Your task to perform on an android device: open app "AliExpress" (install if not already installed) and enter user name: "orangutan@inbox.com" and password: "Lyons" Image 0: 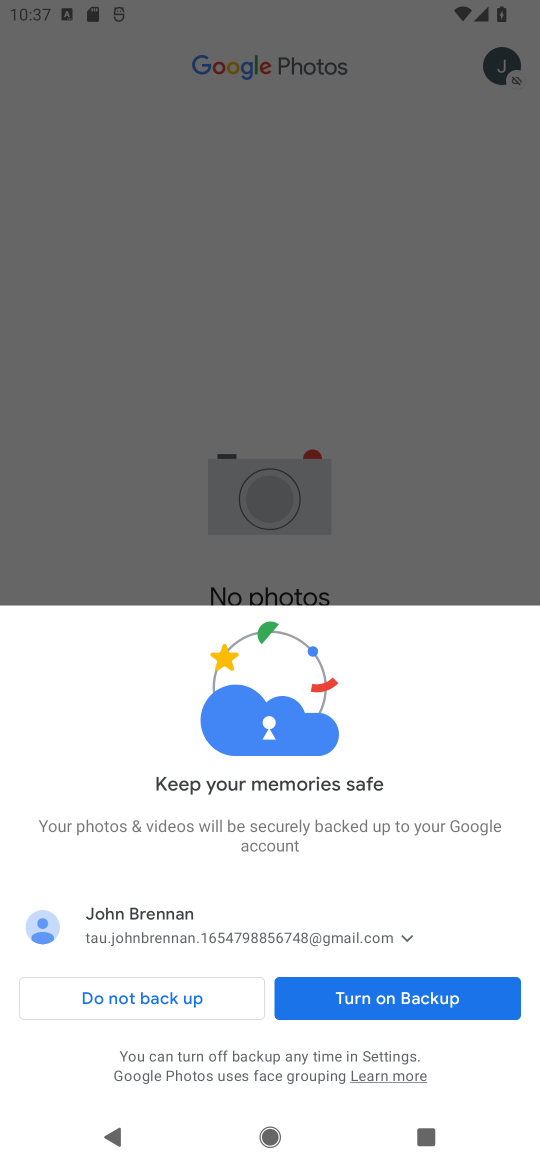
Step 0: press home button
Your task to perform on an android device: open app "AliExpress" (install if not already installed) and enter user name: "orangutan@inbox.com" and password: "Lyons" Image 1: 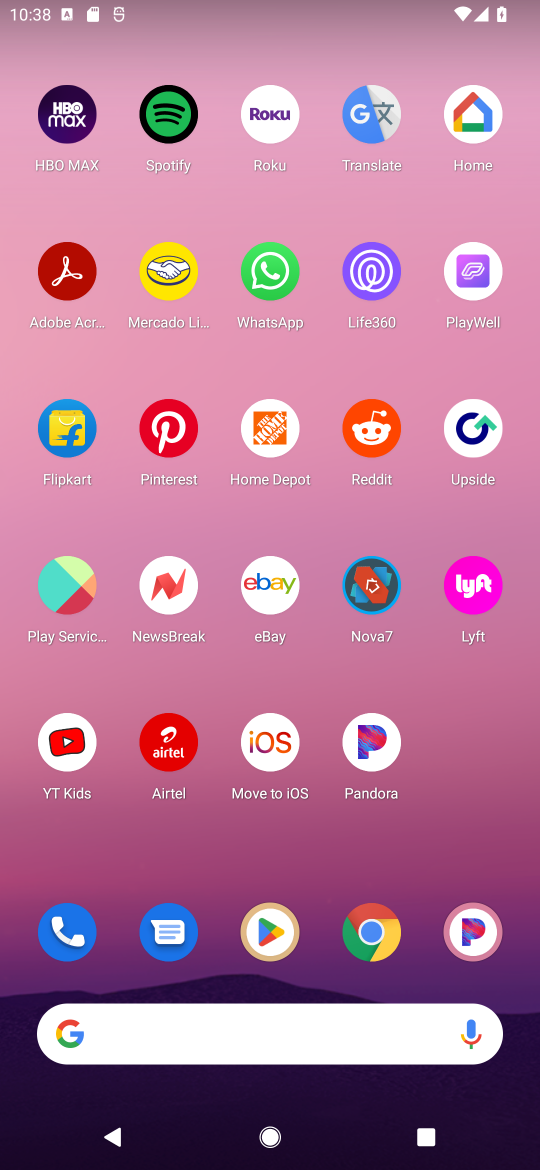
Step 1: click (272, 941)
Your task to perform on an android device: open app "AliExpress" (install if not already installed) and enter user name: "orangutan@inbox.com" and password: "Lyons" Image 2: 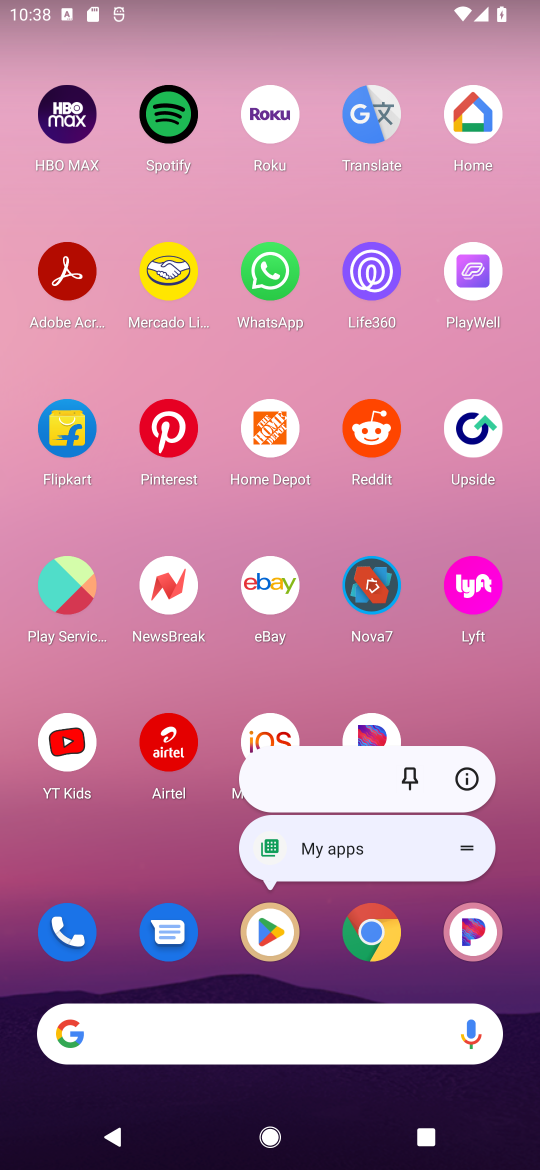
Step 2: click (275, 913)
Your task to perform on an android device: open app "AliExpress" (install if not already installed) and enter user name: "orangutan@inbox.com" and password: "Lyons" Image 3: 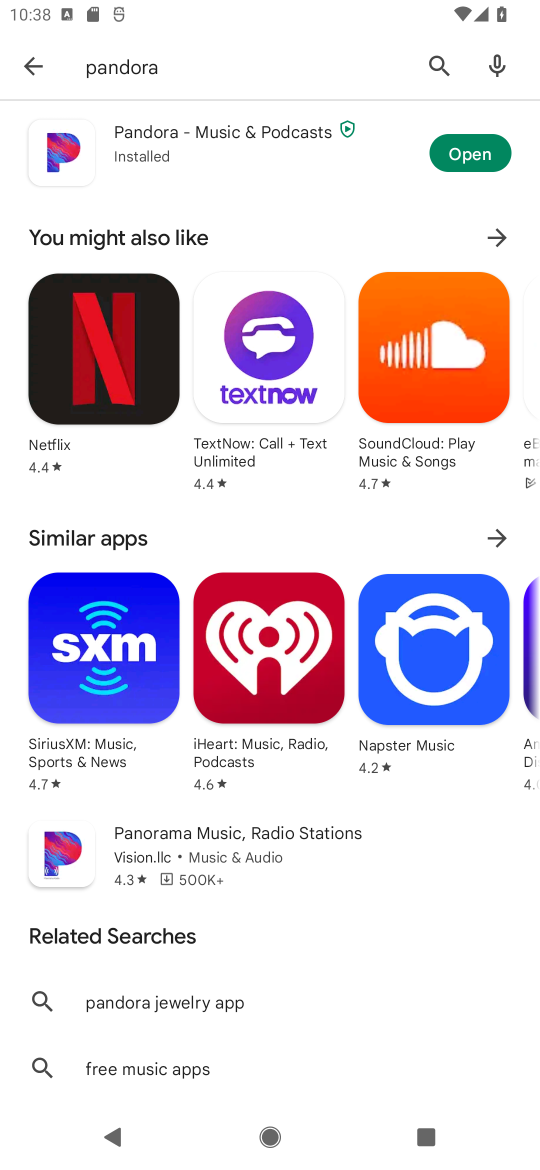
Step 3: click (426, 75)
Your task to perform on an android device: open app "AliExpress" (install if not already installed) and enter user name: "orangutan@inbox.com" and password: "Lyons" Image 4: 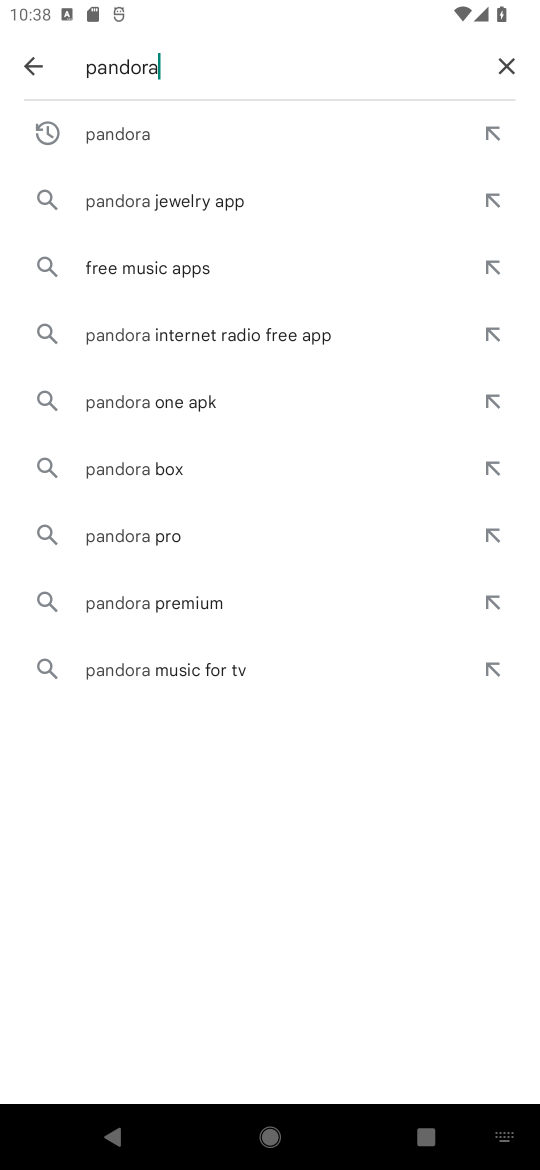
Step 4: click (497, 61)
Your task to perform on an android device: open app "AliExpress" (install if not already installed) and enter user name: "orangutan@inbox.com" and password: "Lyons" Image 5: 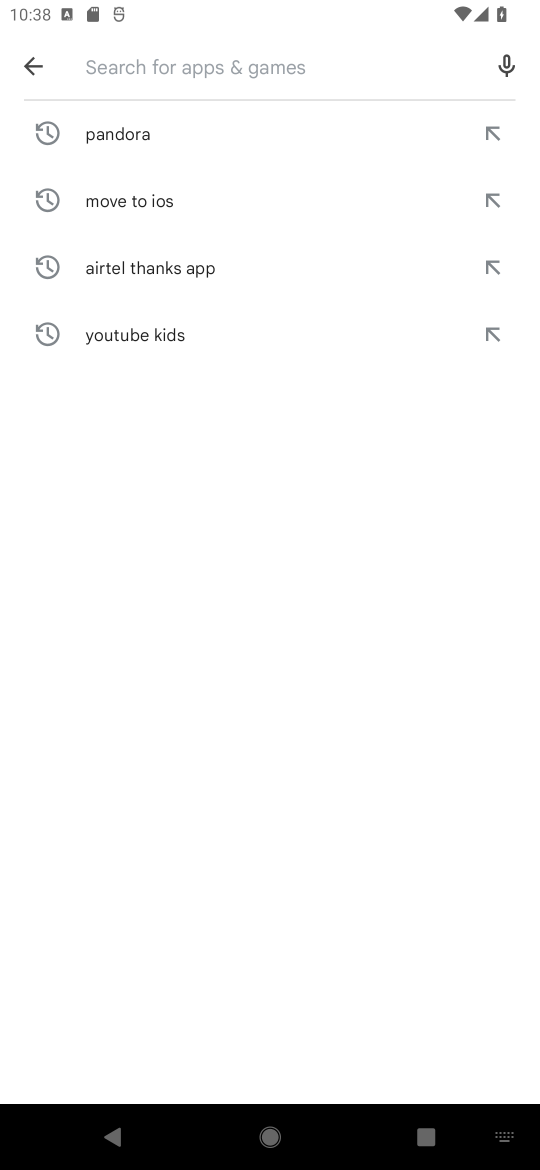
Step 5: click (169, 63)
Your task to perform on an android device: open app "AliExpress" (install if not already installed) and enter user name: "orangutan@inbox.com" and password: "Lyons" Image 6: 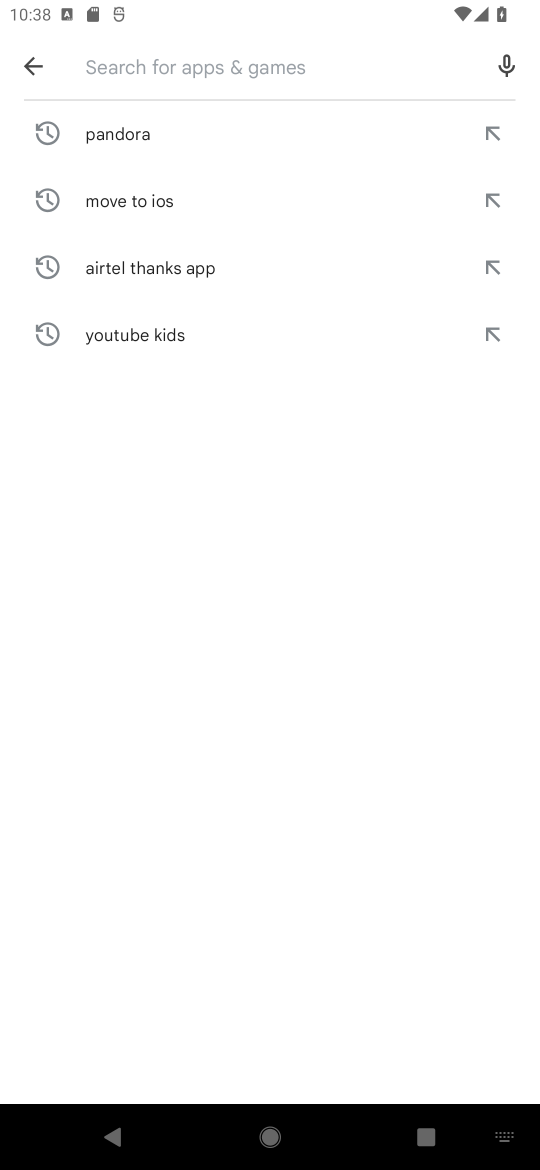
Step 6: type "AliExpress"
Your task to perform on an android device: open app "AliExpress" (install if not already installed) and enter user name: "orangutan@inbox.com" and password: "Lyons" Image 7: 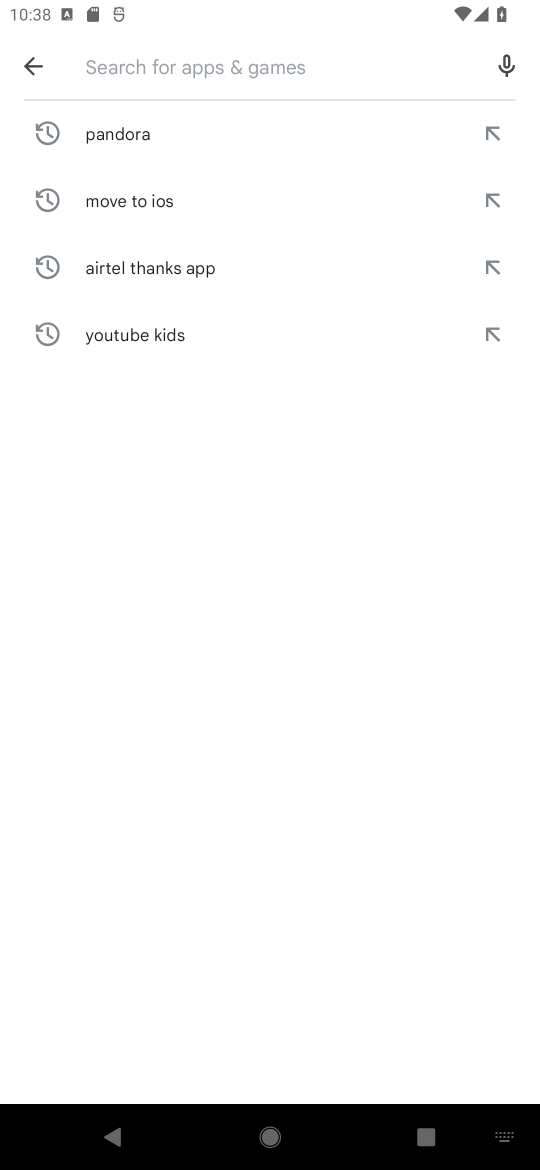
Step 7: click (314, 743)
Your task to perform on an android device: open app "AliExpress" (install if not already installed) and enter user name: "orangutan@inbox.com" and password: "Lyons" Image 8: 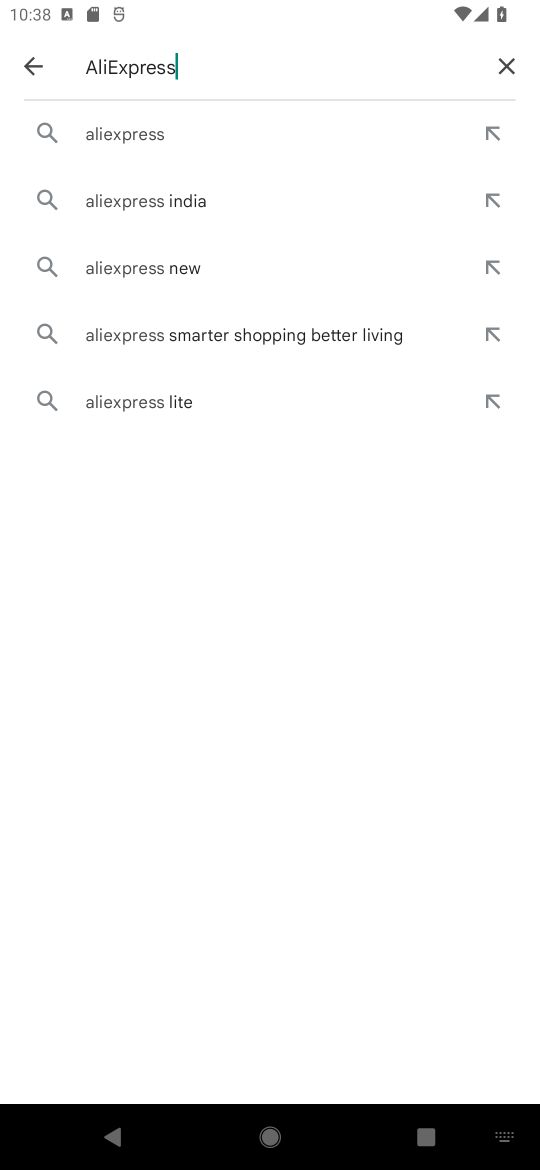
Step 8: click (123, 140)
Your task to perform on an android device: open app "AliExpress" (install if not already installed) and enter user name: "orangutan@inbox.com" and password: "Lyons" Image 9: 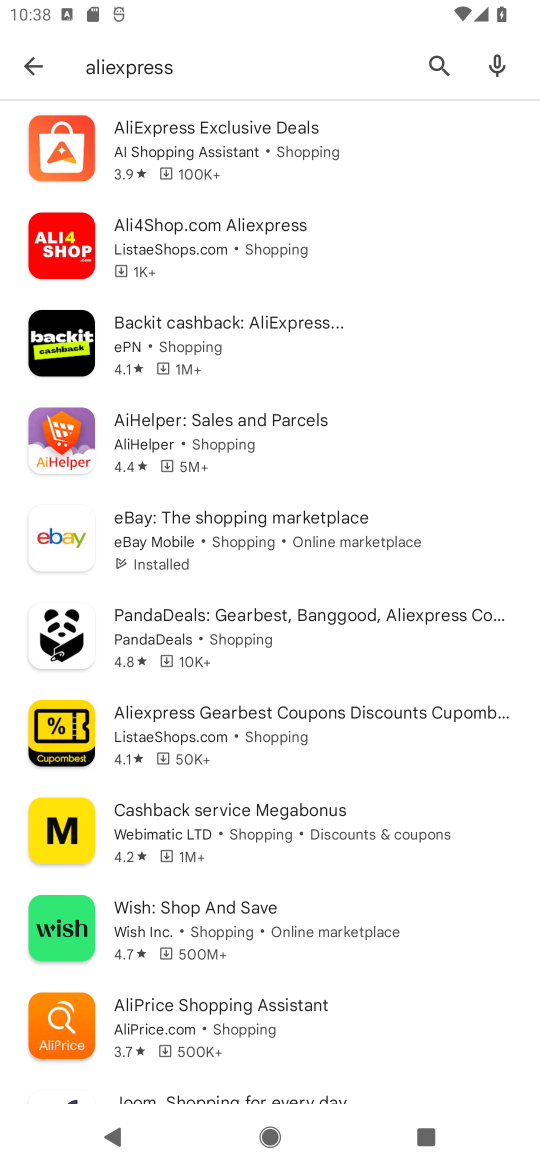
Step 9: click (279, 161)
Your task to perform on an android device: open app "AliExpress" (install if not already installed) and enter user name: "orangutan@inbox.com" and password: "Lyons" Image 10: 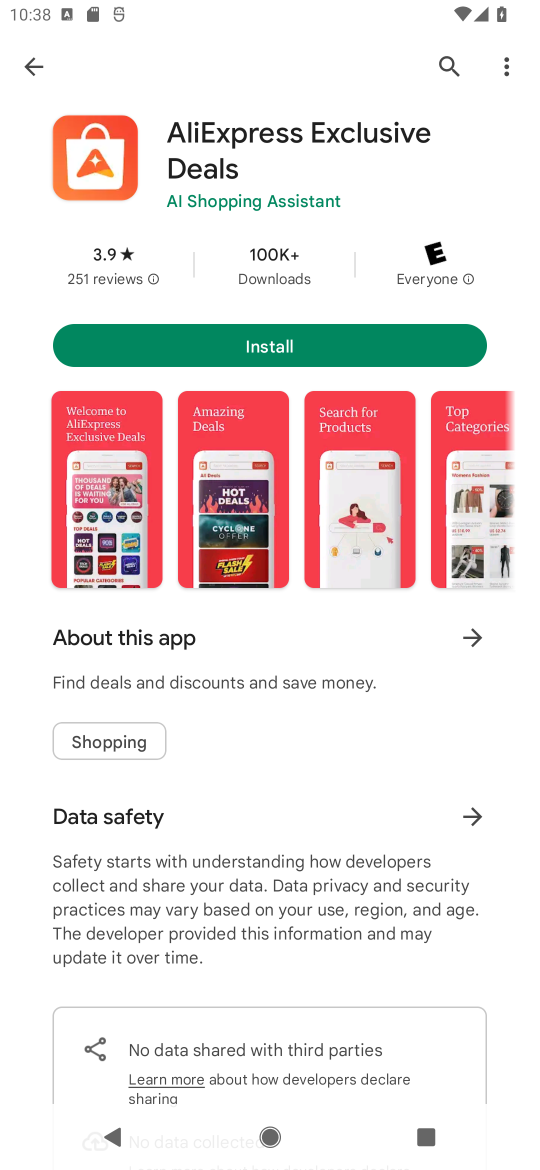
Step 10: click (279, 341)
Your task to perform on an android device: open app "AliExpress" (install if not already installed) and enter user name: "orangutan@inbox.com" and password: "Lyons" Image 11: 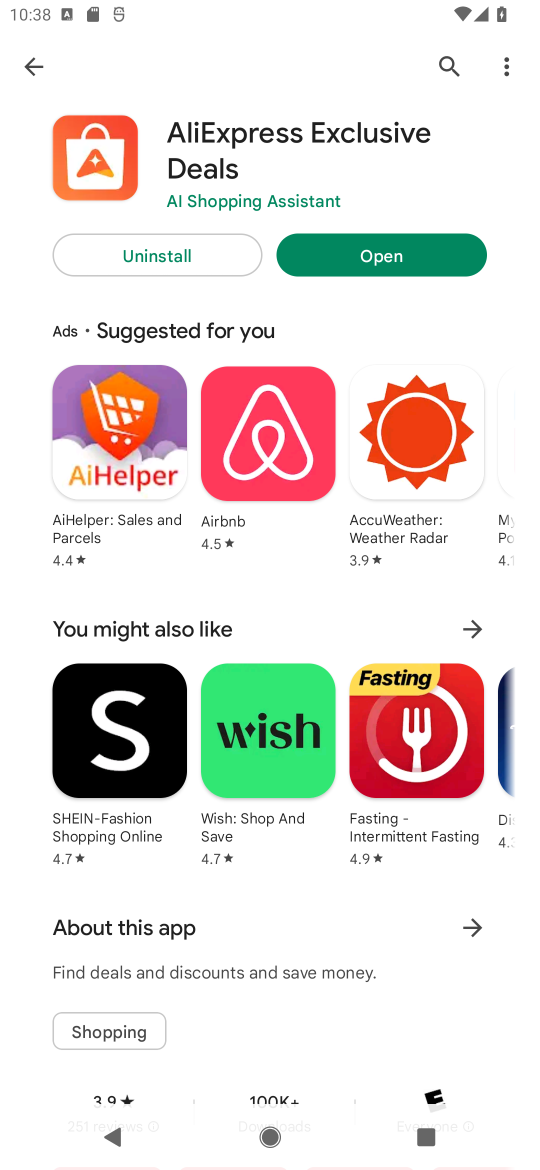
Step 11: click (383, 254)
Your task to perform on an android device: open app "AliExpress" (install if not already installed) and enter user name: "orangutan@inbox.com" and password: "Lyons" Image 12: 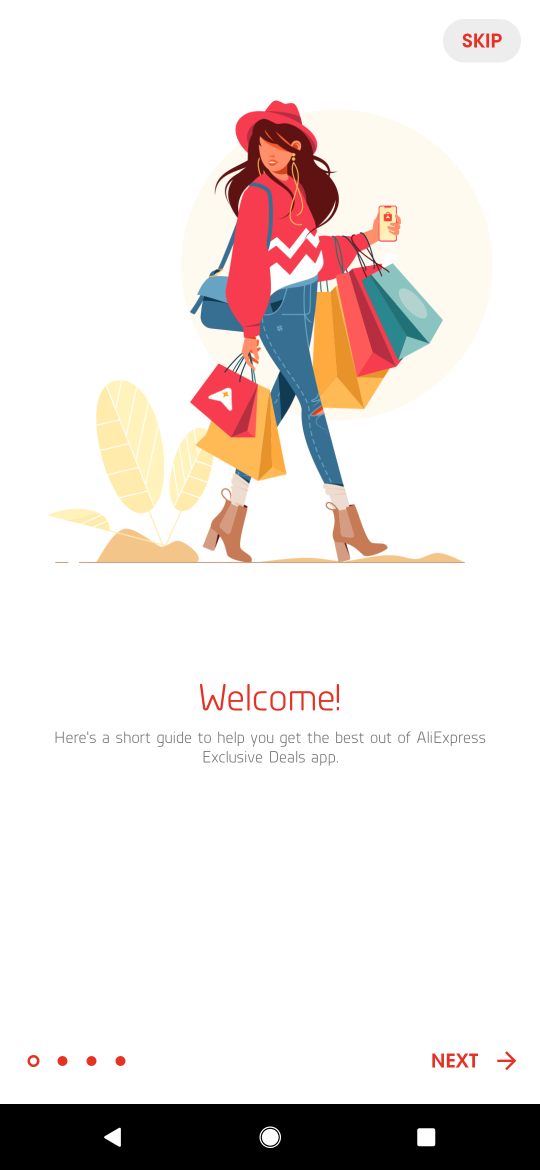
Step 12: click (204, 867)
Your task to perform on an android device: open app "AliExpress" (install if not already installed) and enter user name: "orangutan@inbox.com" and password: "Lyons" Image 13: 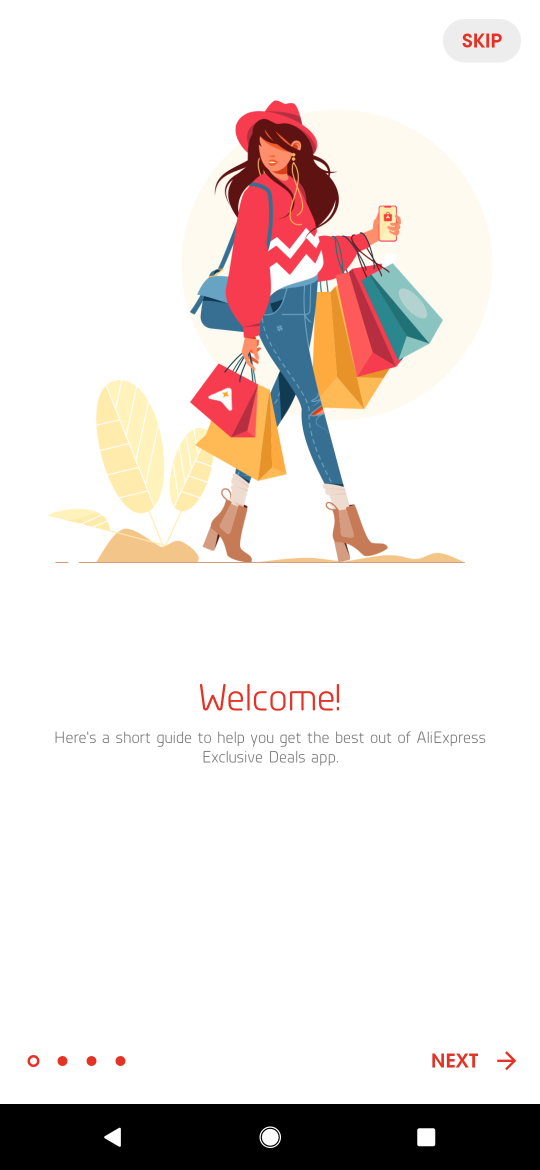
Step 13: click (211, 867)
Your task to perform on an android device: open app "AliExpress" (install if not already installed) and enter user name: "orangutan@inbox.com" and password: "Lyons" Image 14: 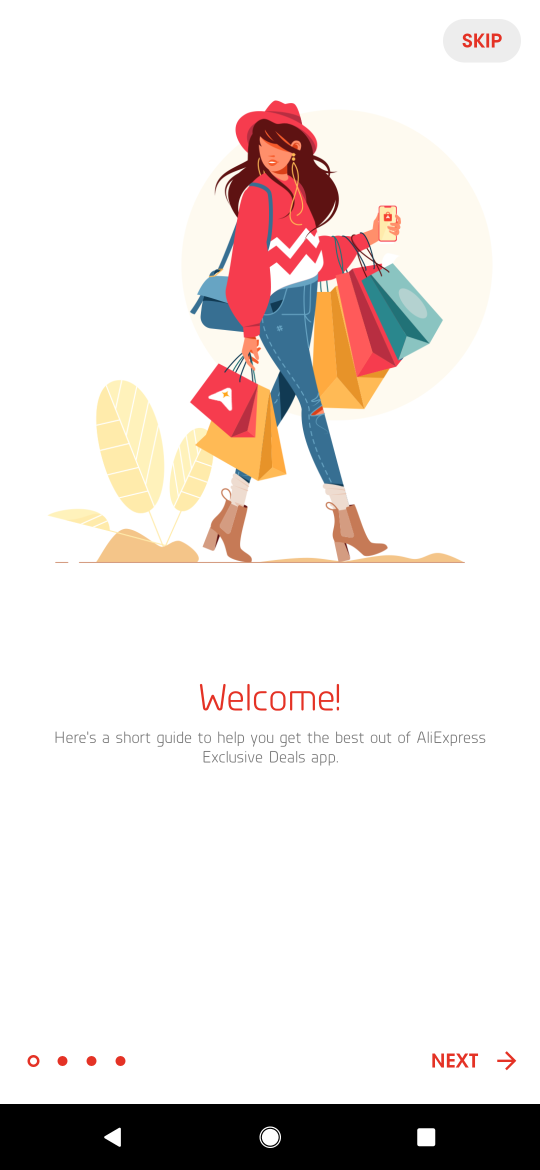
Step 14: click (456, 1049)
Your task to perform on an android device: open app "AliExpress" (install if not already installed) and enter user name: "orangutan@inbox.com" and password: "Lyons" Image 15: 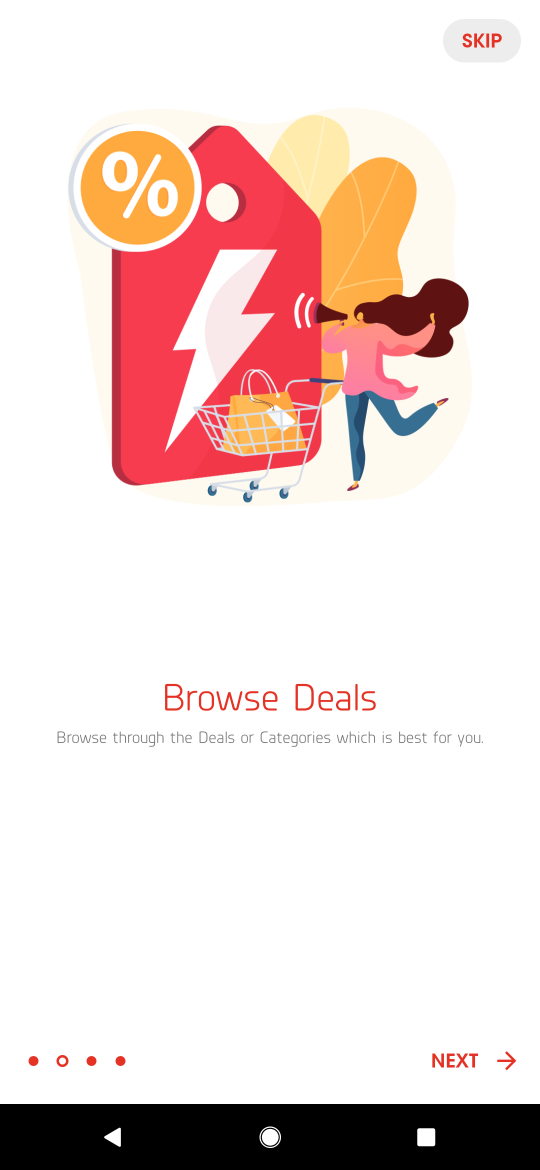
Step 15: click (462, 35)
Your task to perform on an android device: open app "AliExpress" (install if not already installed) and enter user name: "orangutan@inbox.com" and password: "Lyons" Image 16: 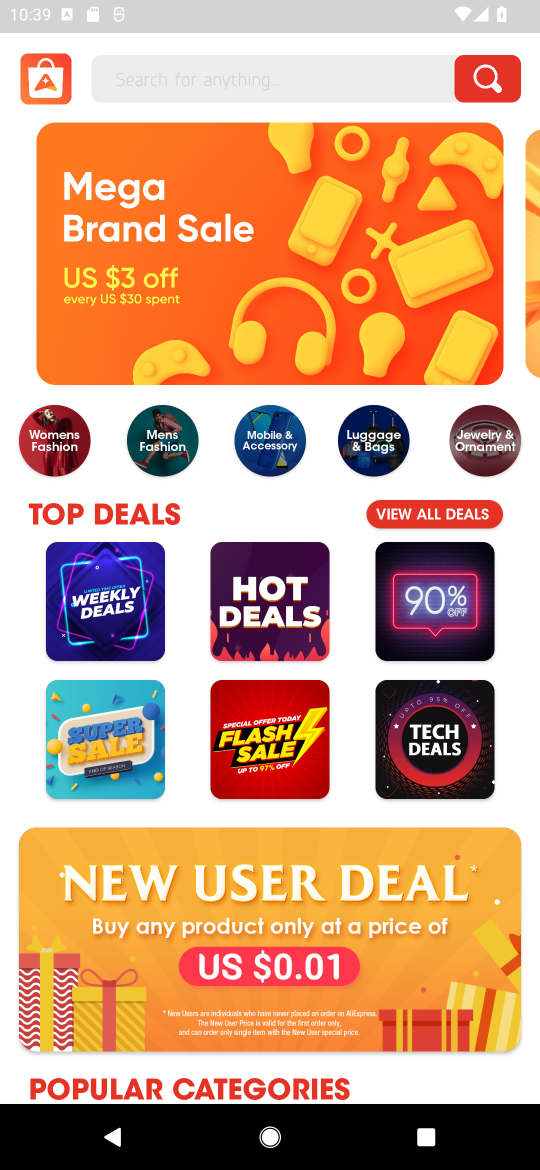
Step 16: click (32, 89)
Your task to perform on an android device: open app "AliExpress" (install if not already installed) and enter user name: "orangutan@inbox.com" and password: "Lyons" Image 17: 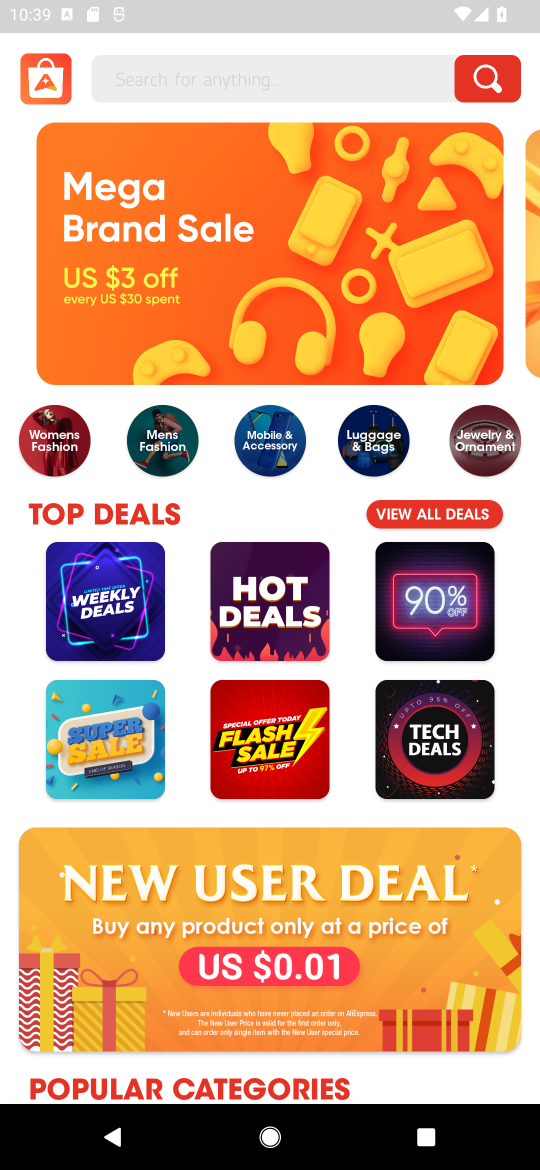
Step 17: click (45, 78)
Your task to perform on an android device: open app "AliExpress" (install if not already installed) and enter user name: "orangutan@inbox.com" and password: "Lyons" Image 18: 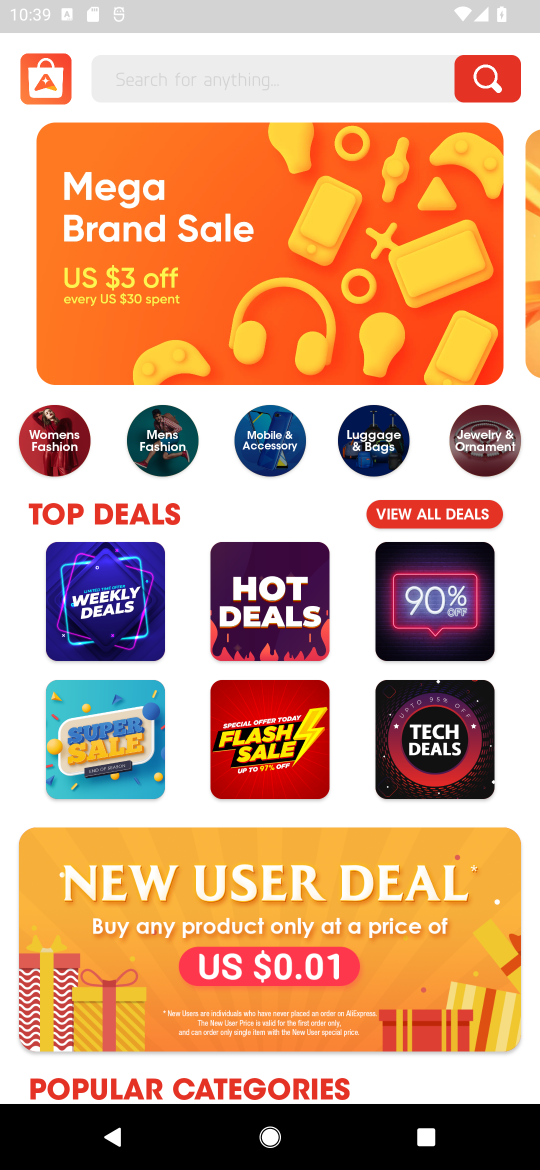
Step 18: task complete